Your task to perform on an android device: Clear the shopping cart on bestbuy.com. Add logitech g502 to the cart on bestbuy.com Image 0: 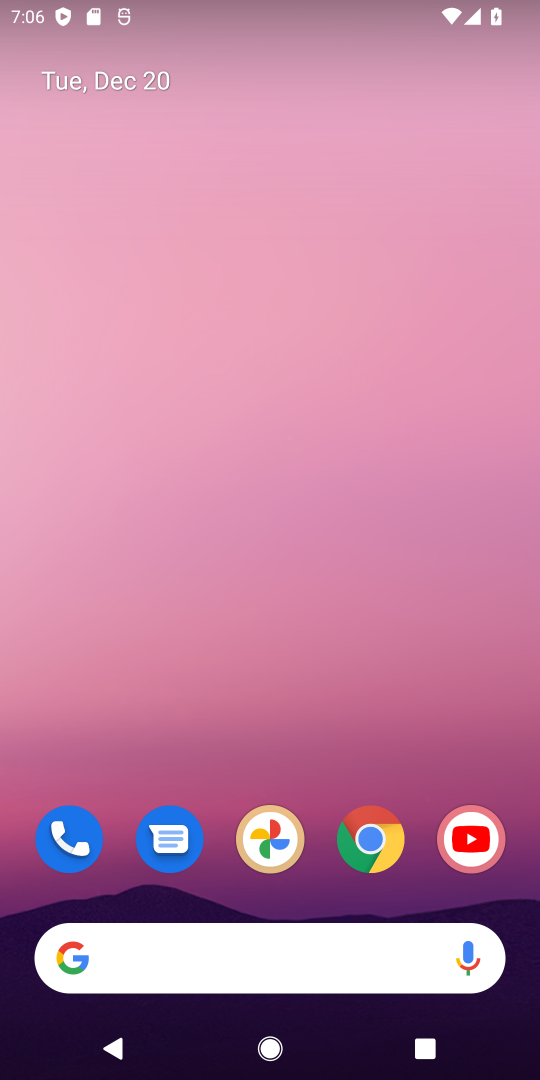
Step 0: click (224, 968)
Your task to perform on an android device: Clear the shopping cart on bestbuy.com. Add logitech g502 to the cart on bestbuy.com Image 1: 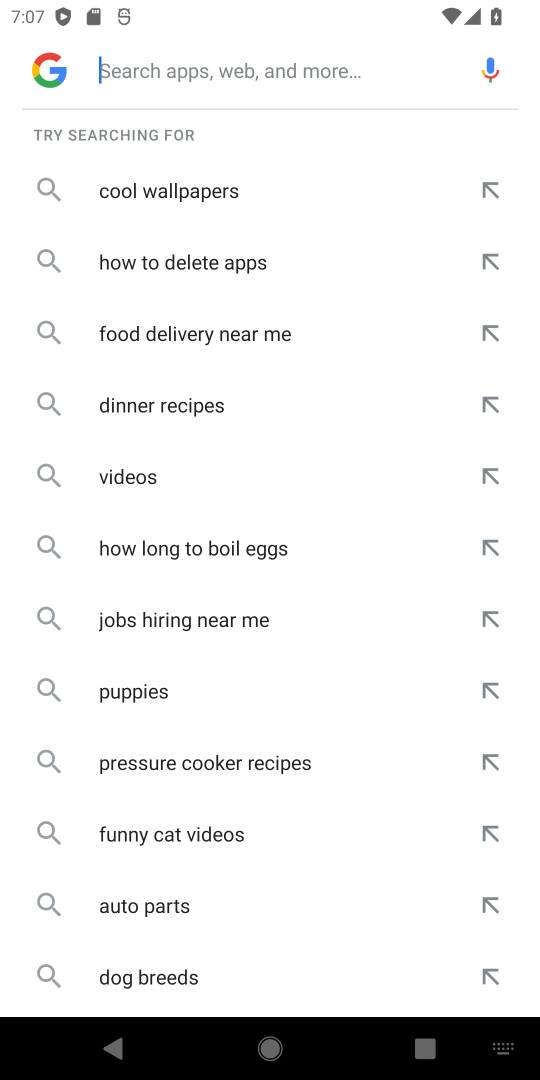
Step 1: type "bestbuy"
Your task to perform on an android device: Clear the shopping cart on bestbuy.com. Add logitech g502 to the cart on bestbuy.com Image 2: 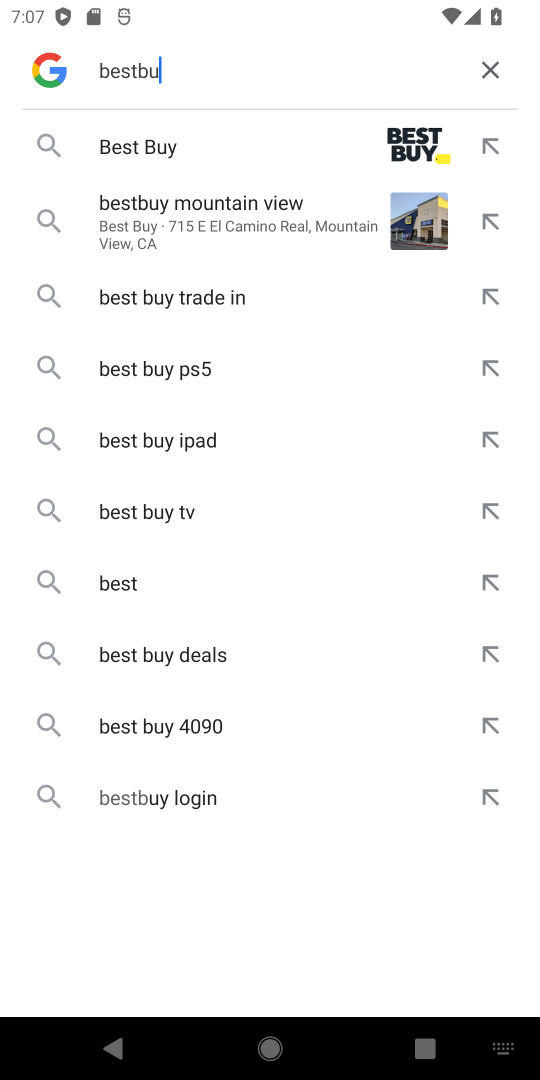
Step 2: type ""
Your task to perform on an android device: Clear the shopping cart on bestbuy.com. Add logitech g502 to the cart on bestbuy.com Image 3: 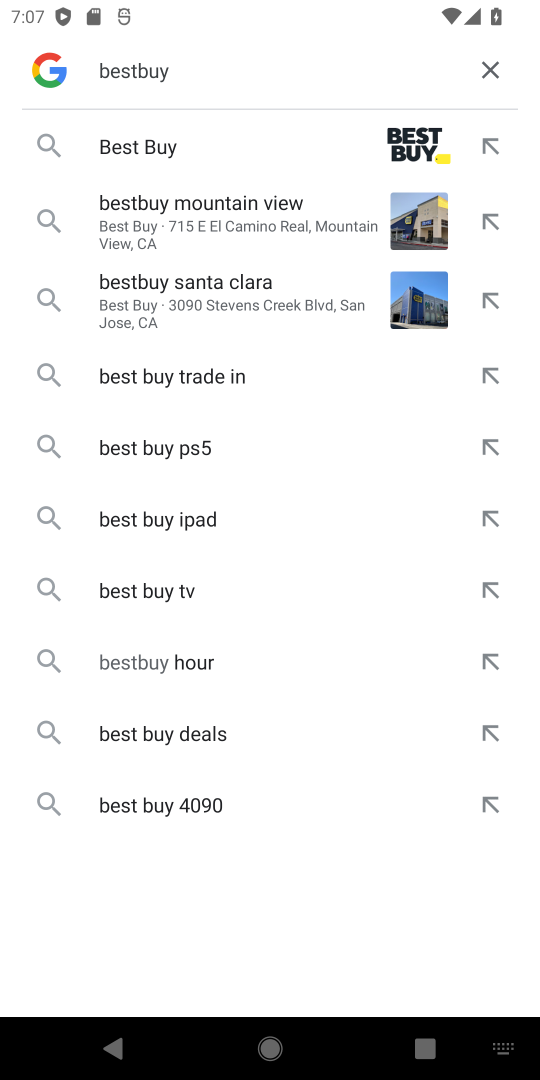
Step 3: click (149, 162)
Your task to perform on an android device: Clear the shopping cart on bestbuy.com. Add logitech g502 to the cart on bestbuy.com Image 4: 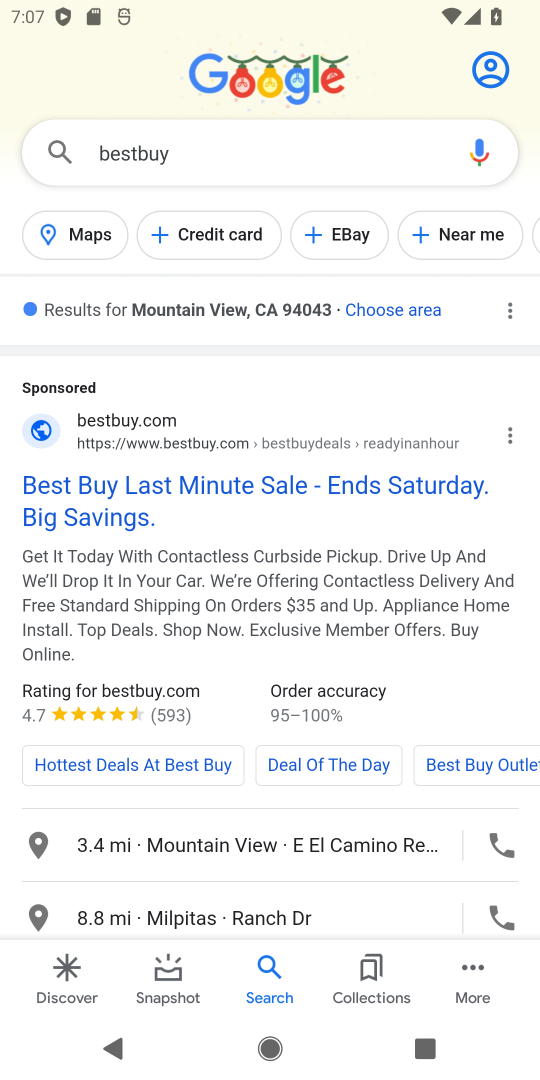
Step 4: click (175, 493)
Your task to perform on an android device: Clear the shopping cart on bestbuy.com. Add logitech g502 to the cart on bestbuy.com Image 5: 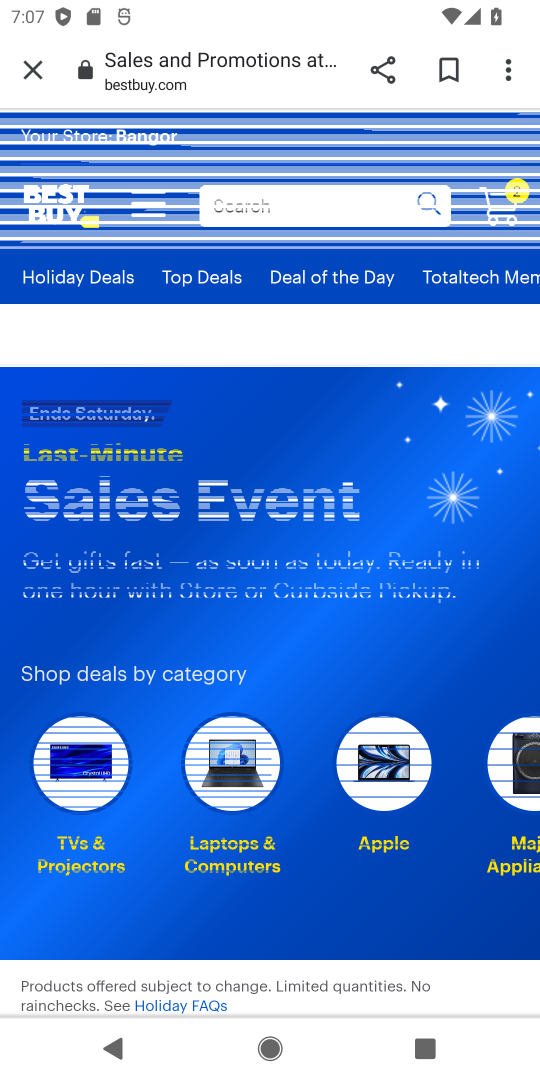
Step 5: drag from (301, 866) to (254, 144)
Your task to perform on an android device: Clear the shopping cart on bestbuy.com. Add logitech g502 to the cart on bestbuy.com Image 6: 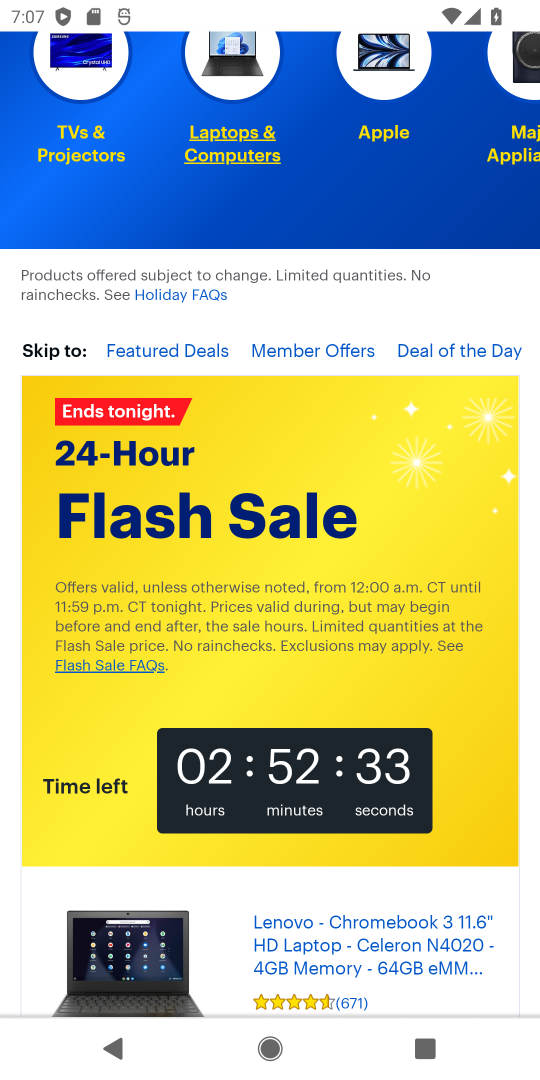
Step 6: drag from (380, 883) to (359, 0)
Your task to perform on an android device: Clear the shopping cart on bestbuy.com. Add logitech g502 to the cart on bestbuy.com Image 7: 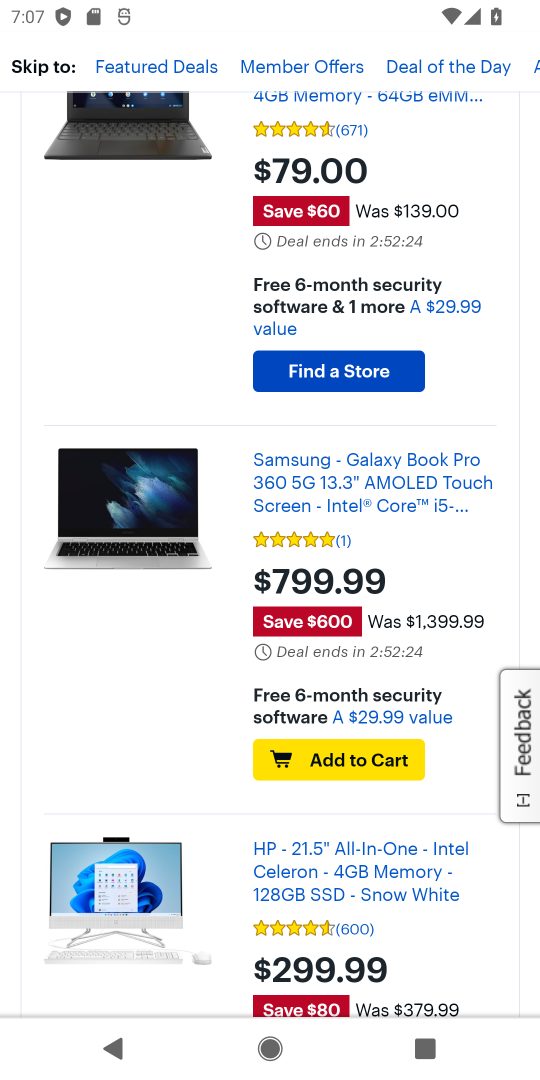
Step 7: drag from (282, 411) to (278, 1078)
Your task to perform on an android device: Clear the shopping cart on bestbuy.com. Add logitech g502 to the cart on bestbuy.com Image 8: 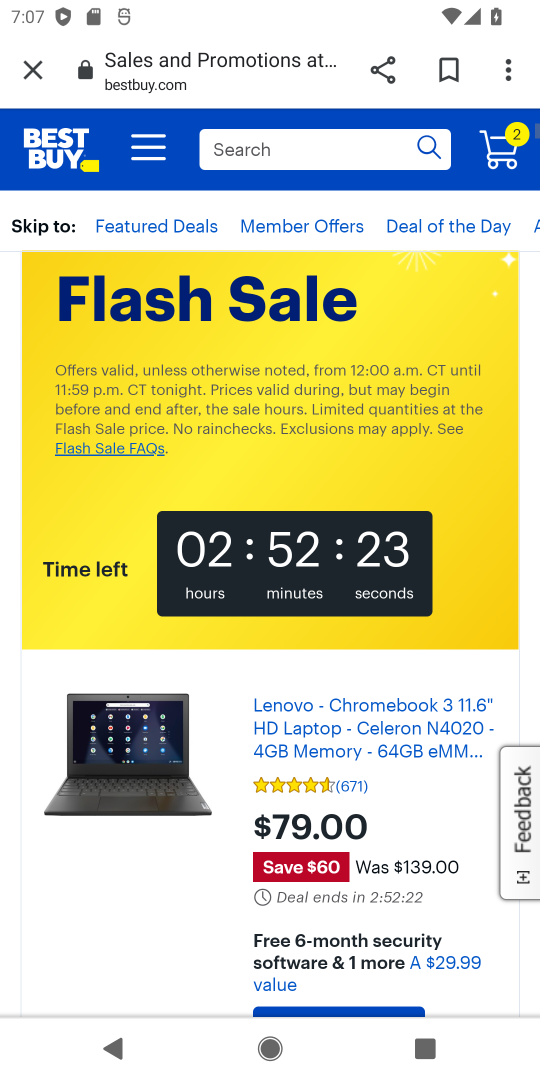
Step 8: drag from (346, 937) to (284, 622)
Your task to perform on an android device: Clear the shopping cart on bestbuy.com. Add logitech g502 to the cart on bestbuy.com Image 9: 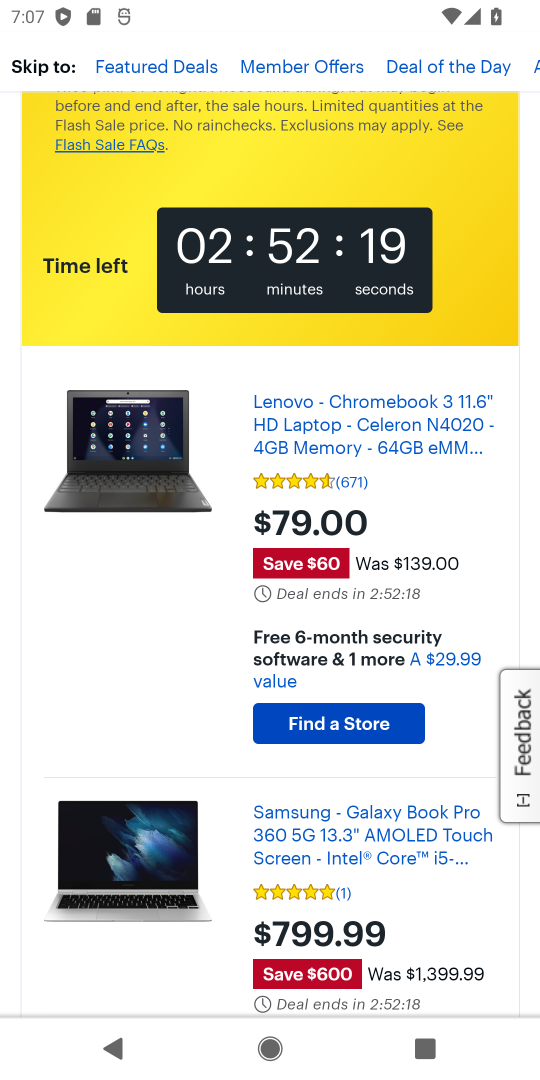
Step 9: drag from (322, 615) to (276, 1027)
Your task to perform on an android device: Clear the shopping cart on bestbuy.com. Add logitech g502 to the cart on bestbuy.com Image 10: 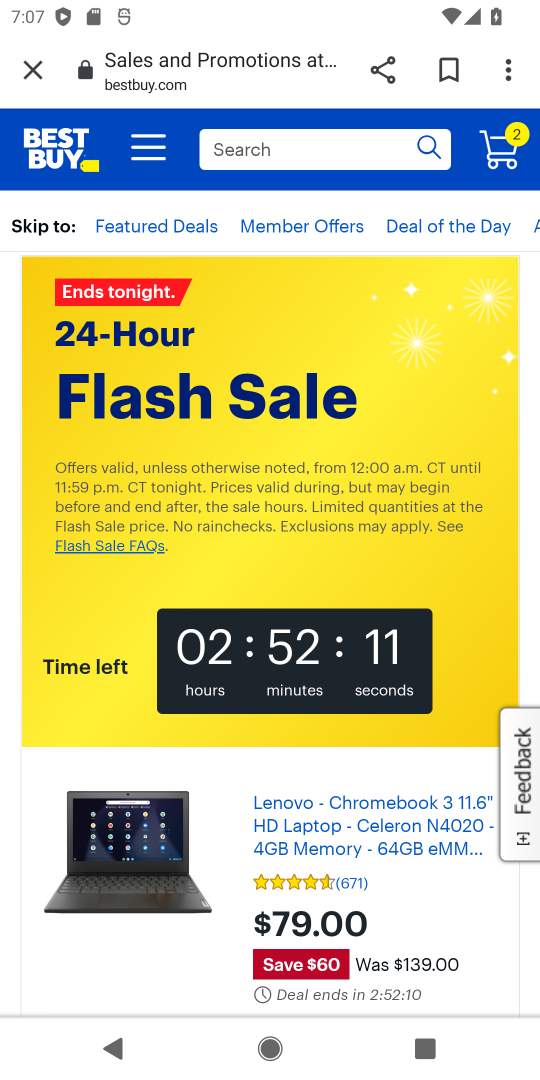
Step 10: click (491, 146)
Your task to perform on an android device: Clear the shopping cart on bestbuy.com. Add logitech g502 to the cart on bestbuy.com Image 11: 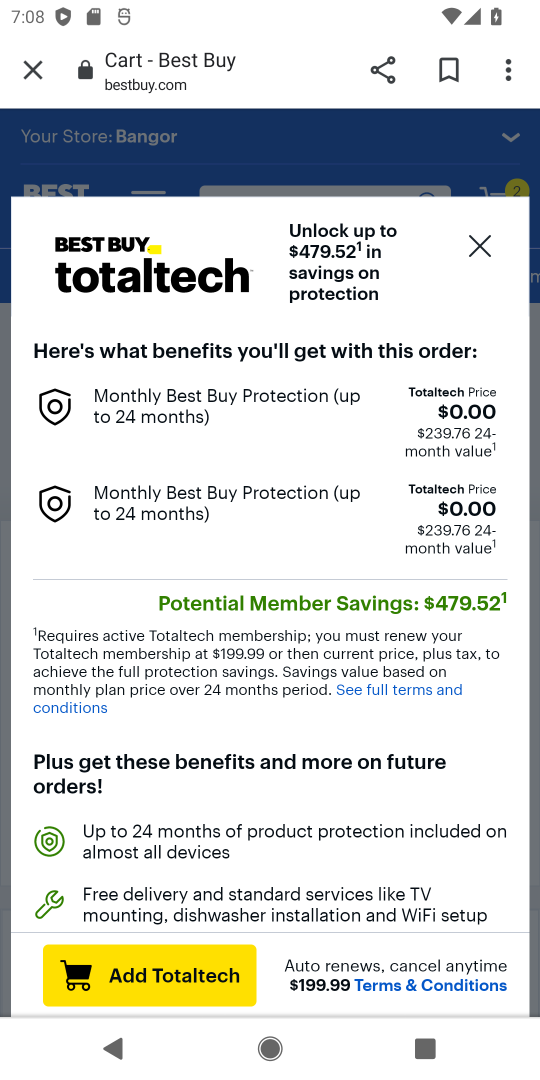
Step 11: click (466, 251)
Your task to perform on an android device: Clear the shopping cart on bestbuy.com. Add logitech g502 to the cart on bestbuy.com Image 12: 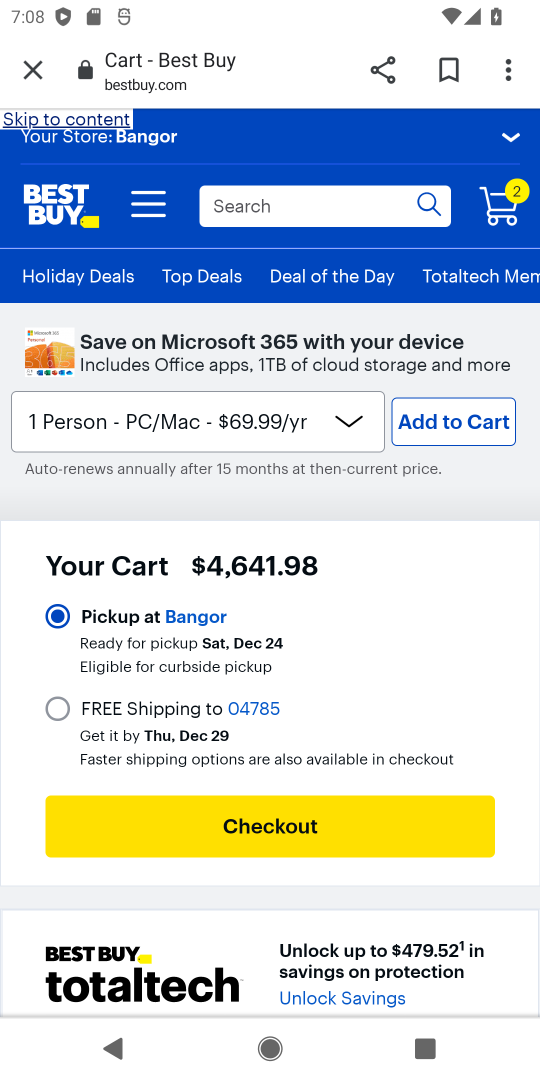
Step 12: drag from (229, 467) to (173, 149)
Your task to perform on an android device: Clear the shopping cart on bestbuy.com. Add logitech g502 to the cart on bestbuy.com Image 13: 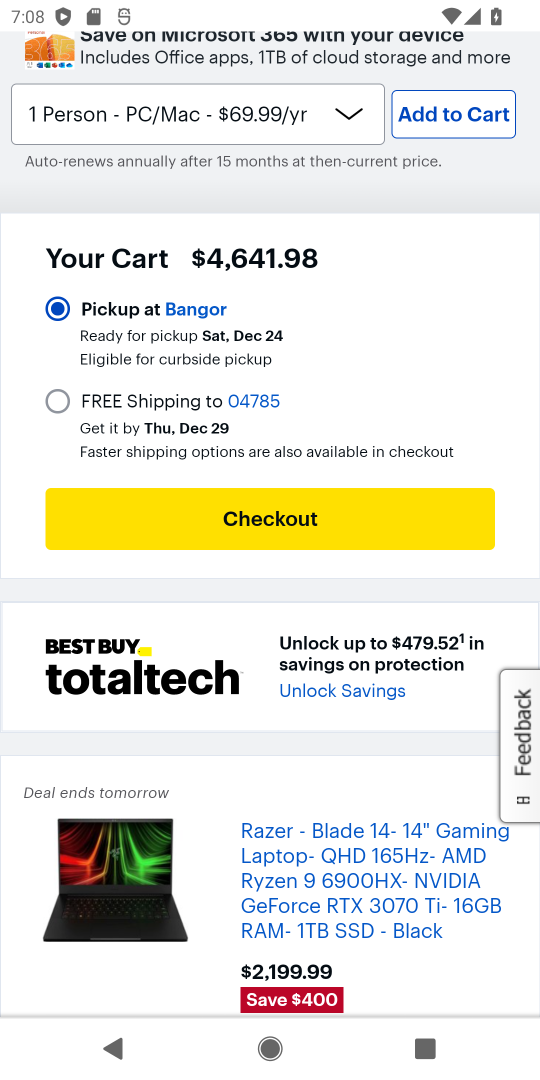
Step 13: drag from (320, 828) to (251, 416)
Your task to perform on an android device: Clear the shopping cart on bestbuy.com. Add logitech g502 to the cart on bestbuy.com Image 14: 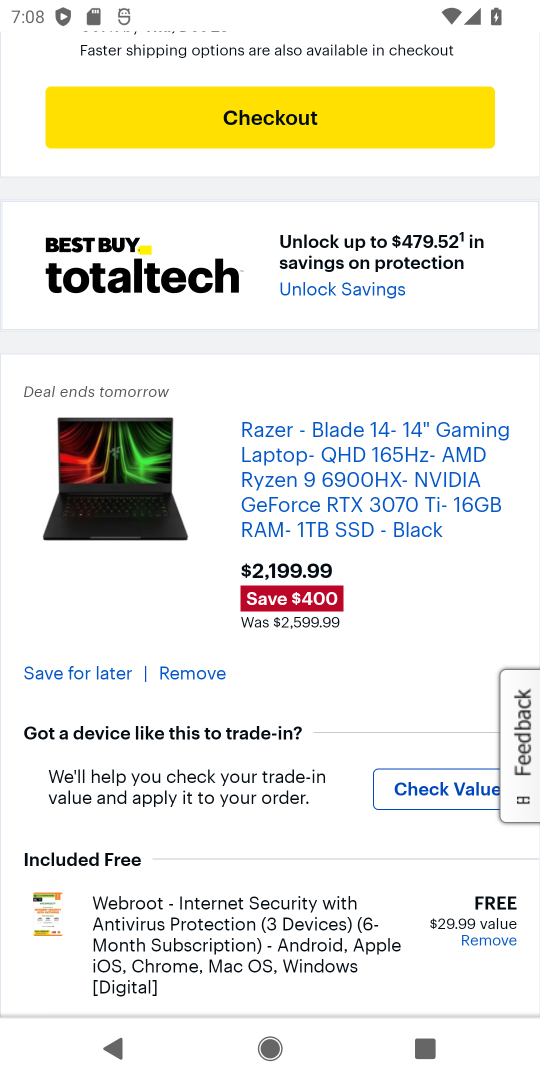
Step 14: click (177, 678)
Your task to perform on an android device: Clear the shopping cart on bestbuy.com. Add logitech g502 to the cart on bestbuy.com Image 15: 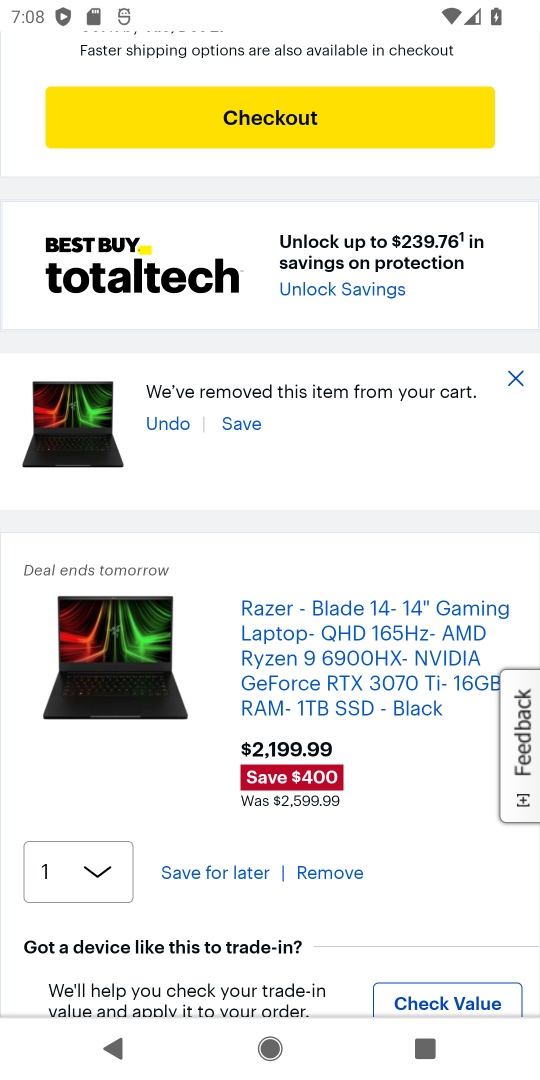
Step 15: click (337, 871)
Your task to perform on an android device: Clear the shopping cart on bestbuy.com. Add logitech g502 to the cart on bestbuy.com Image 16: 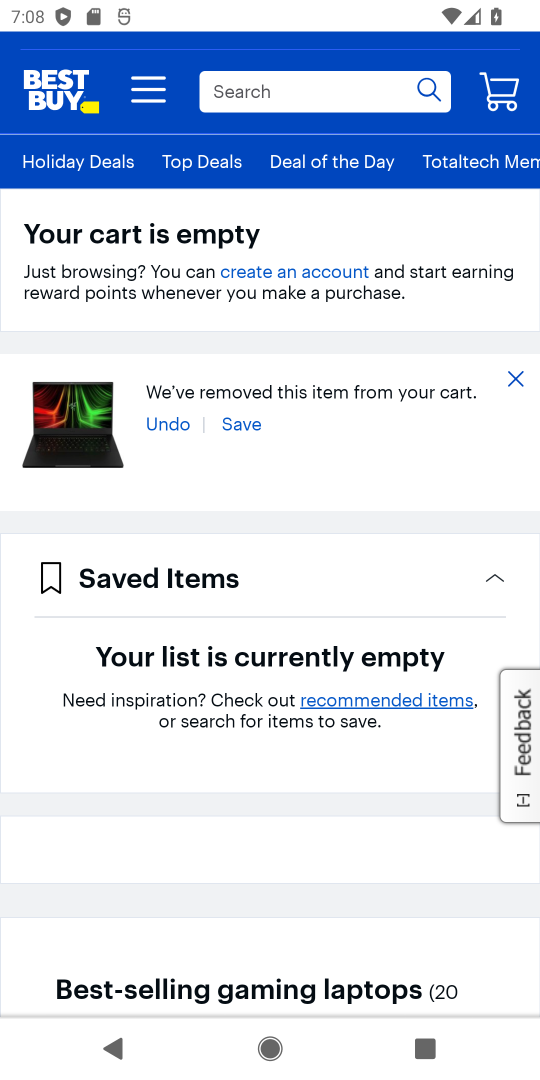
Step 16: click (299, 79)
Your task to perform on an android device: Clear the shopping cart on bestbuy.com. Add logitech g502 to the cart on bestbuy.com Image 17: 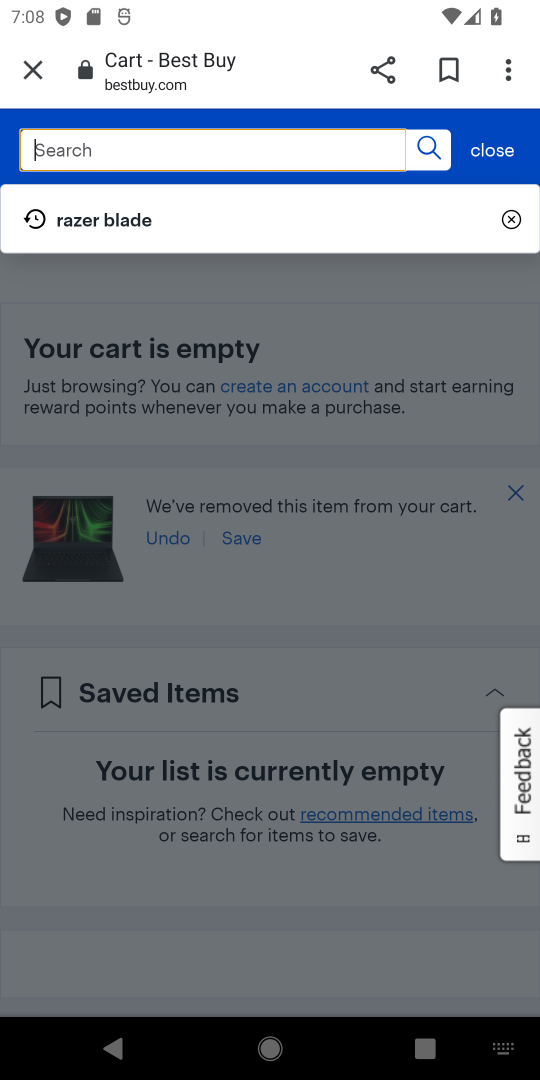
Step 17: type "logitech g502"
Your task to perform on an android device: Clear the shopping cart on bestbuy.com. Add logitech g502 to the cart on bestbuy.com Image 18: 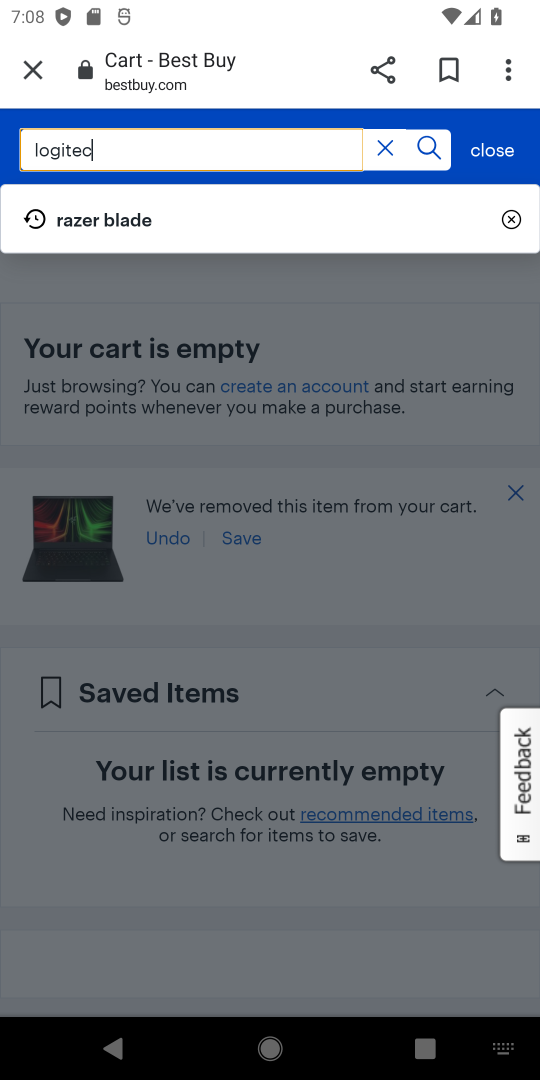
Step 18: type ""
Your task to perform on an android device: Clear the shopping cart on bestbuy.com. Add logitech g502 to the cart on bestbuy.com Image 19: 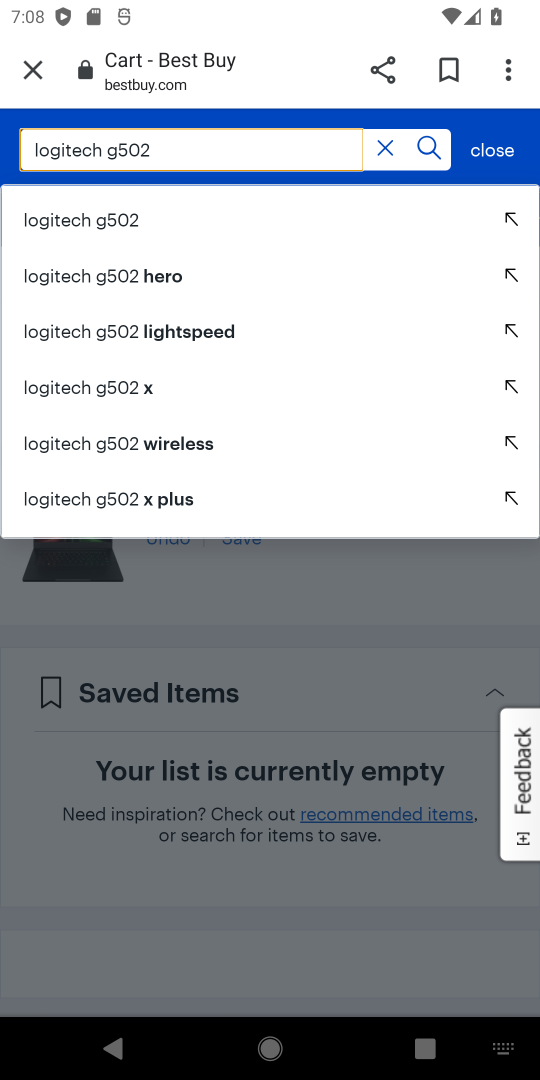
Step 19: click (125, 216)
Your task to perform on an android device: Clear the shopping cart on bestbuy.com. Add logitech g502 to the cart on bestbuy.com Image 20: 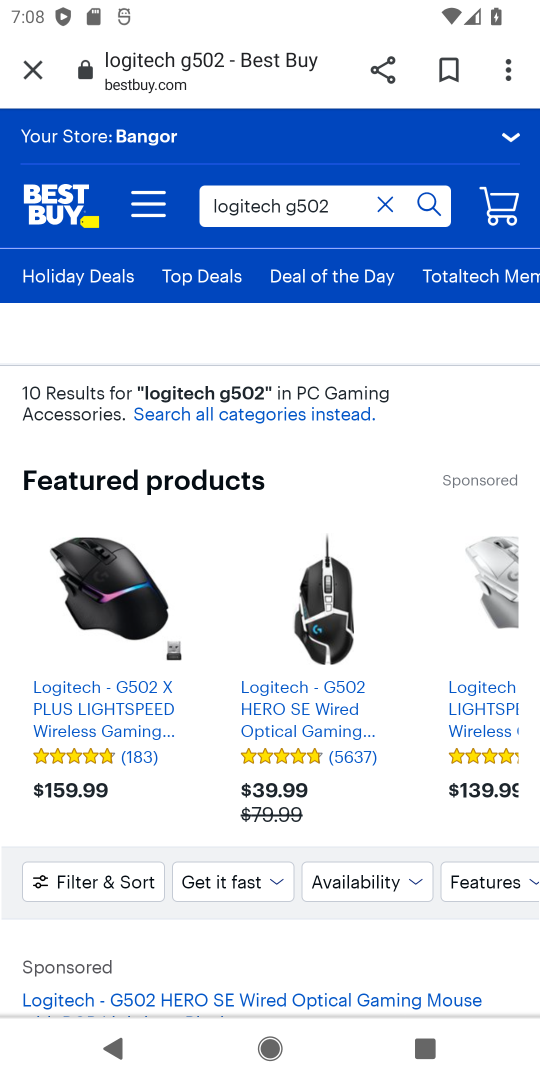
Step 20: drag from (302, 802) to (259, 195)
Your task to perform on an android device: Clear the shopping cart on bestbuy.com. Add logitech g502 to the cart on bestbuy.com Image 21: 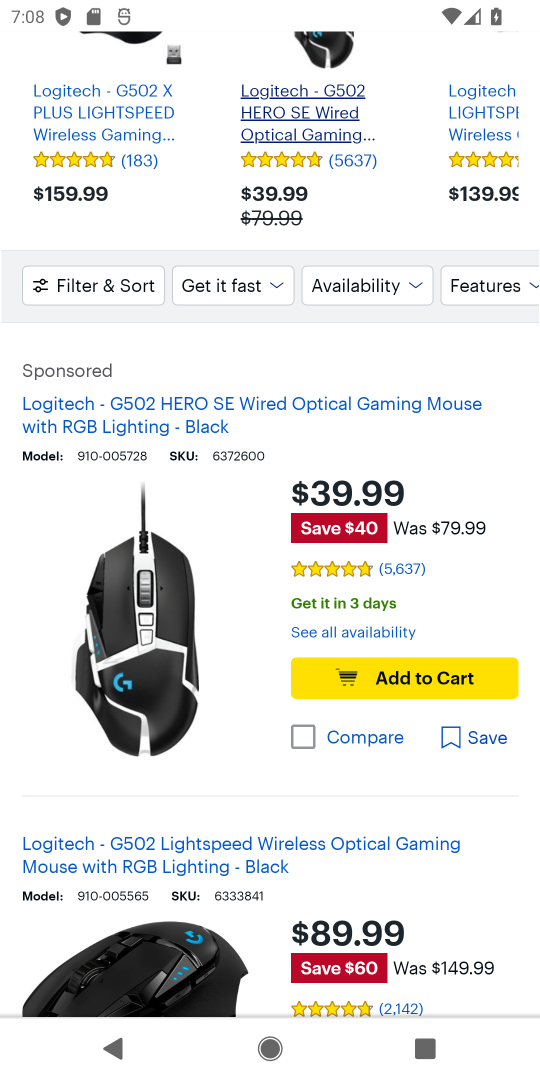
Step 21: click (413, 674)
Your task to perform on an android device: Clear the shopping cart on bestbuy.com. Add logitech g502 to the cart on bestbuy.com Image 22: 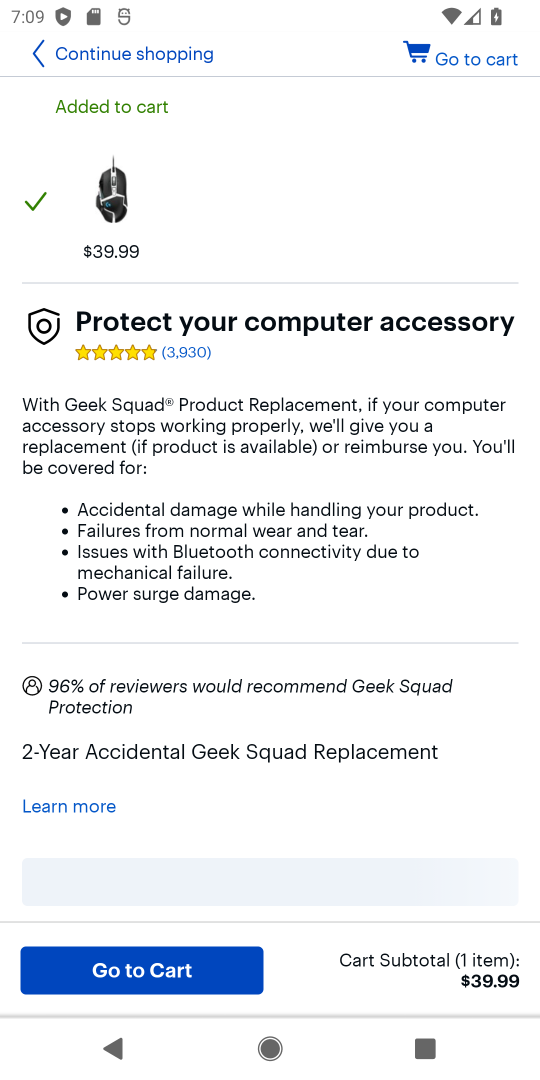
Step 22: task complete